Your task to perform on an android device: Add macbook air to the cart on bestbuy.com, then select checkout. Image 0: 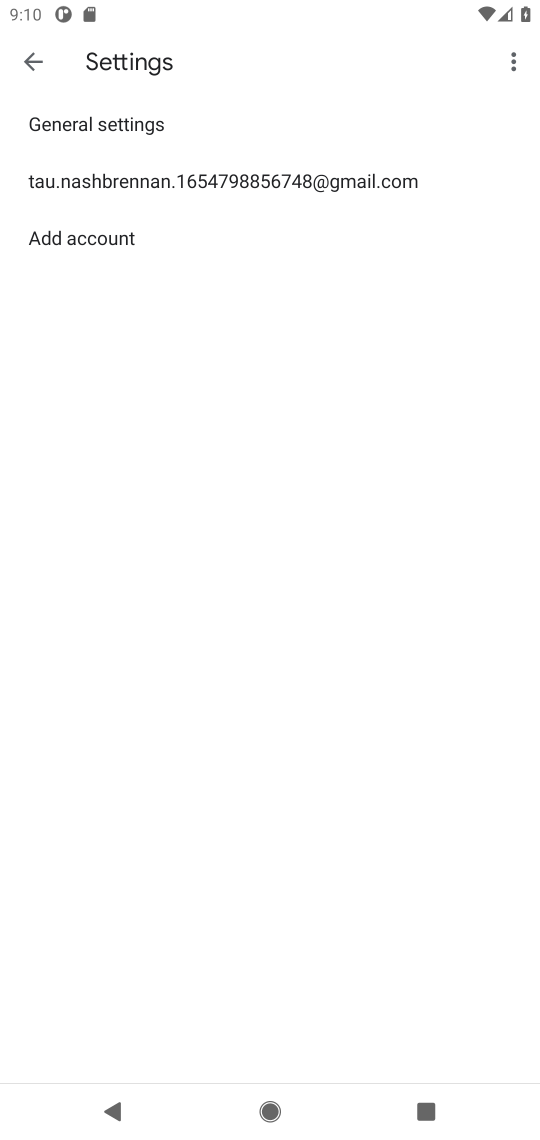
Step 0: press home button
Your task to perform on an android device: Add macbook air to the cart on bestbuy.com, then select checkout. Image 1: 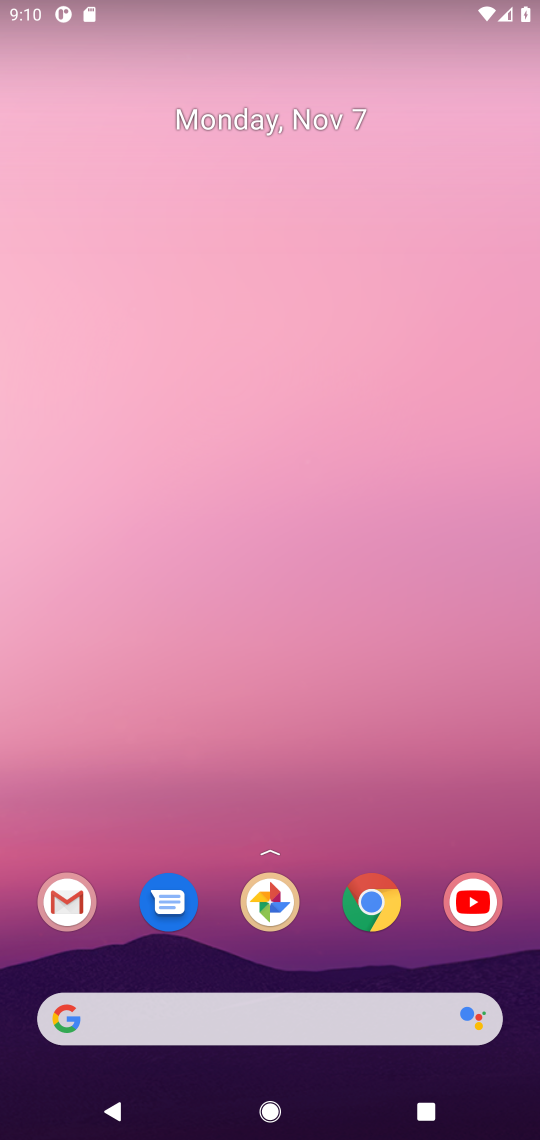
Step 1: click (360, 907)
Your task to perform on an android device: Add macbook air to the cart on bestbuy.com, then select checkout. Image 2: 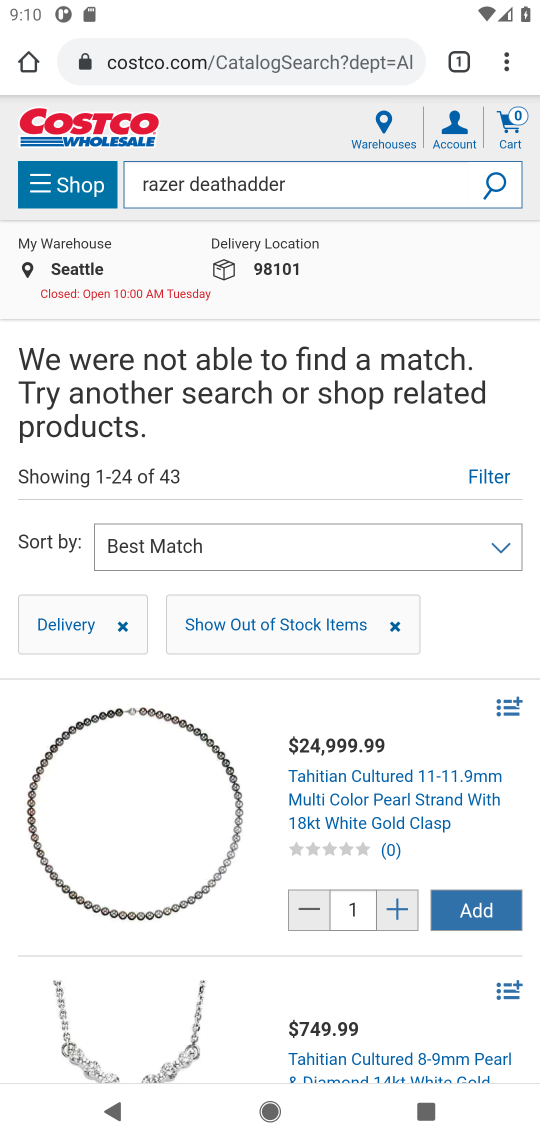
Step 2: click (227, 74)
Your task to perform on an android device: Add macbook air to the cart on bestbuy.com, then select checkout. Image 3: 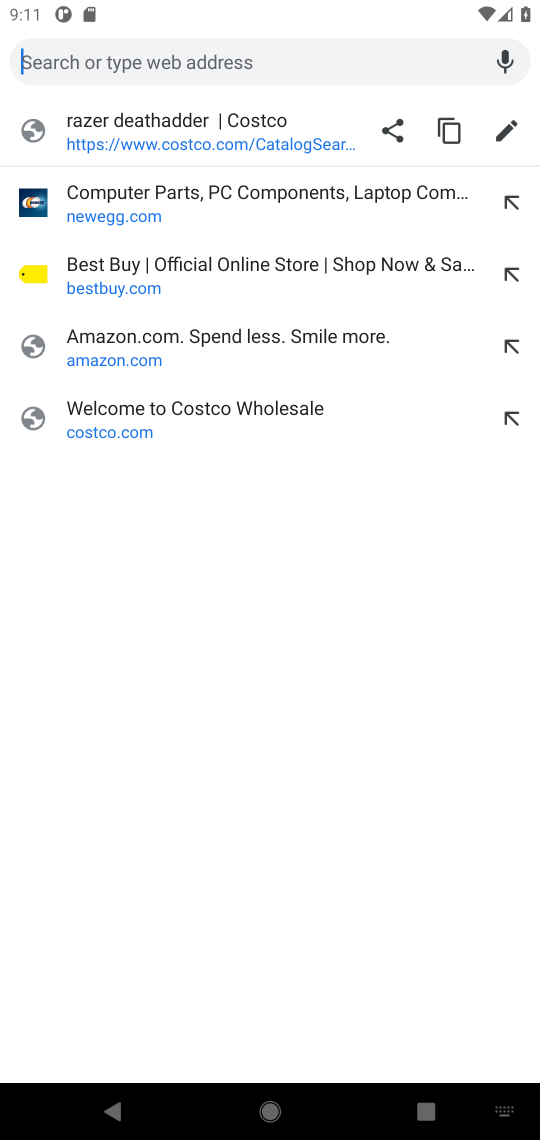
Step 3: click (97, 290)
Your task to perform on an android device: Add macbook air to the cart on bestbuy.com, then select checkout. Image 4: 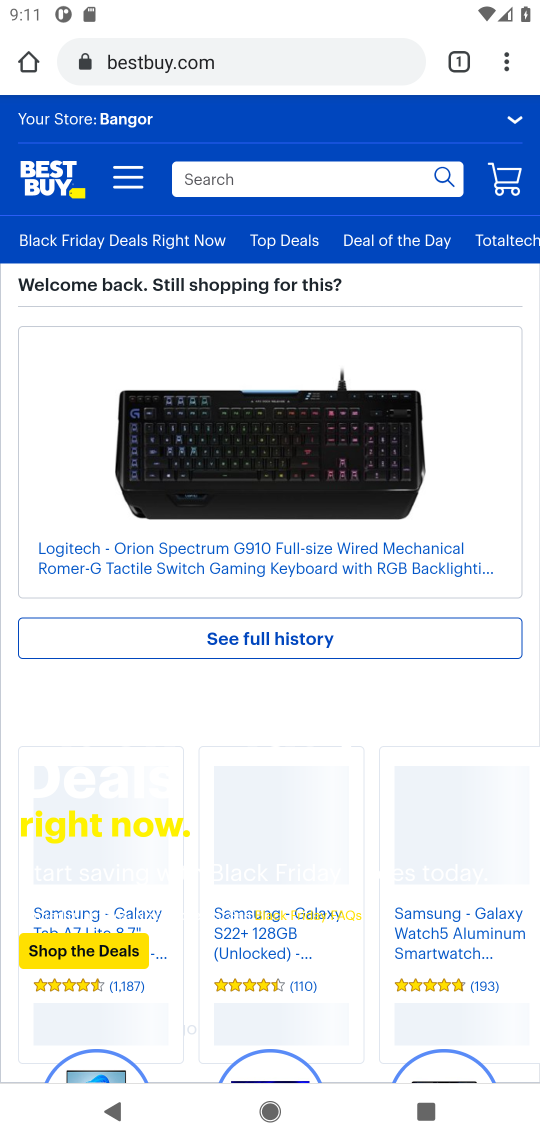
Step 4: click (297, 186)
Your task to perform on an android device: Add macbook air to the cart on bestbuy.com, then select checkout. Image 5: 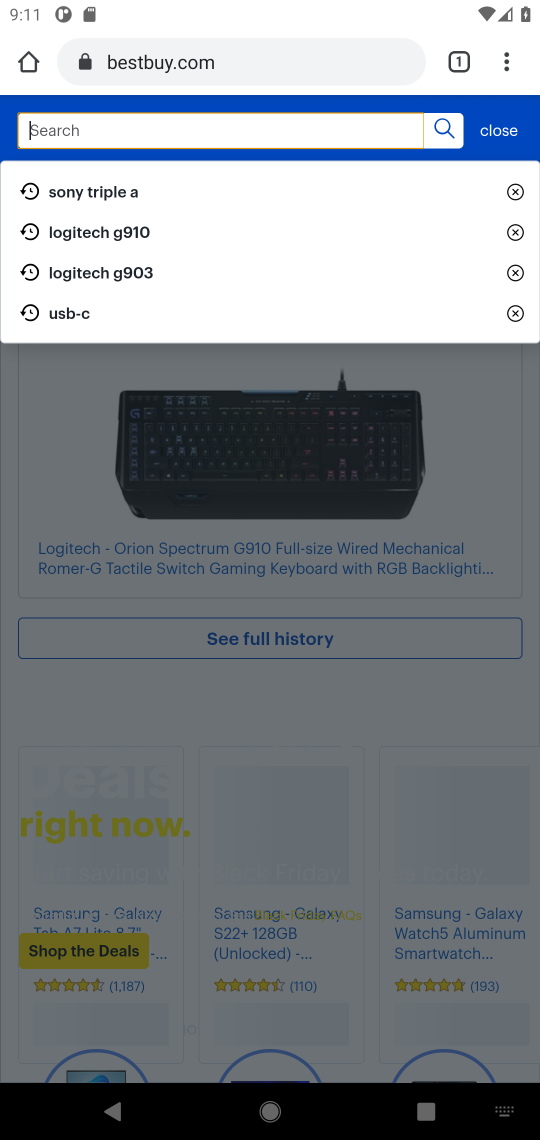
Step 5: type " macbook air "
Your task to perform on an android device: Add macbook air to the cart on bestbuy.com, then select checkout. Image 6: 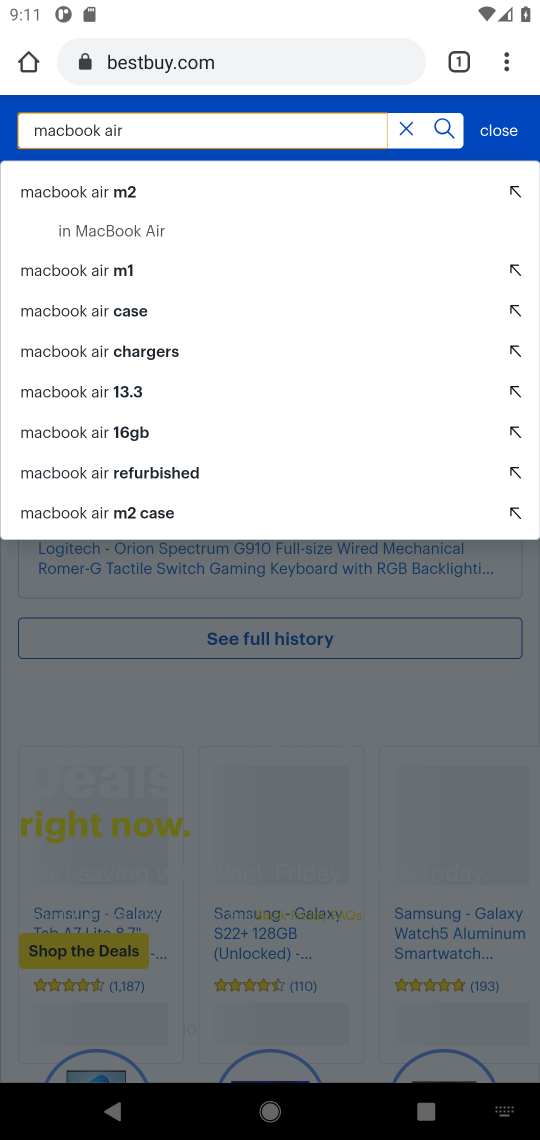
Step 6: click (445, 124)
Your task to perform on an android device: Add macbook air to the cart on bestbuy.com, then select checkout. Image 7: 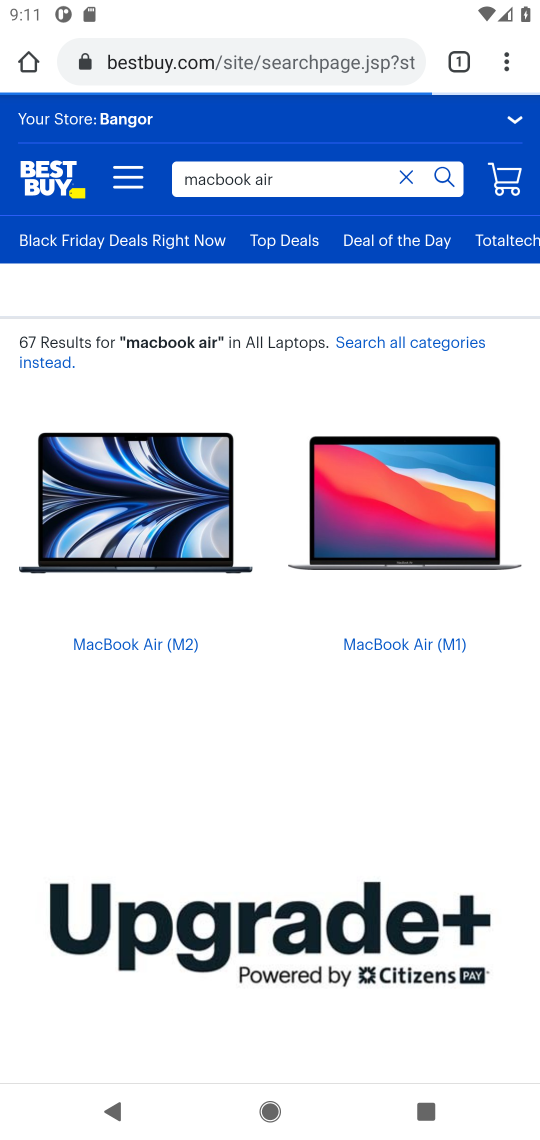
Step 7: drag from (253, 804) to (241, 497)
Your task to perform on an android device: Add macbook air to the cart on bestbuy.com, then select checkout. Image 8: 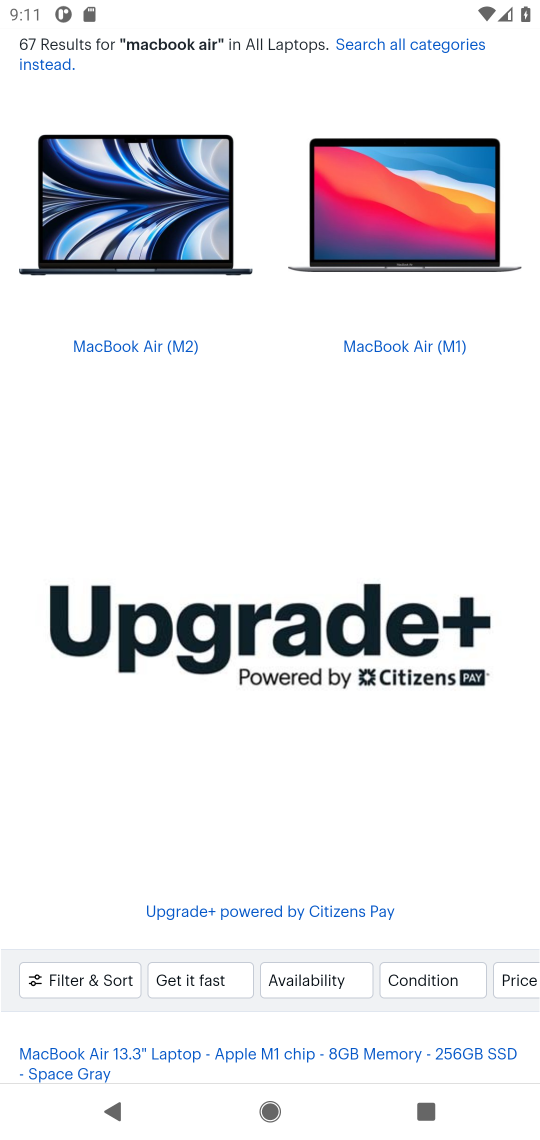
Step 8: drag from (192, 842) to (195, 514)
Your task to perform on an android device: Add macbook air to the cart on bestbuy.com, then select checkout. Image 9: 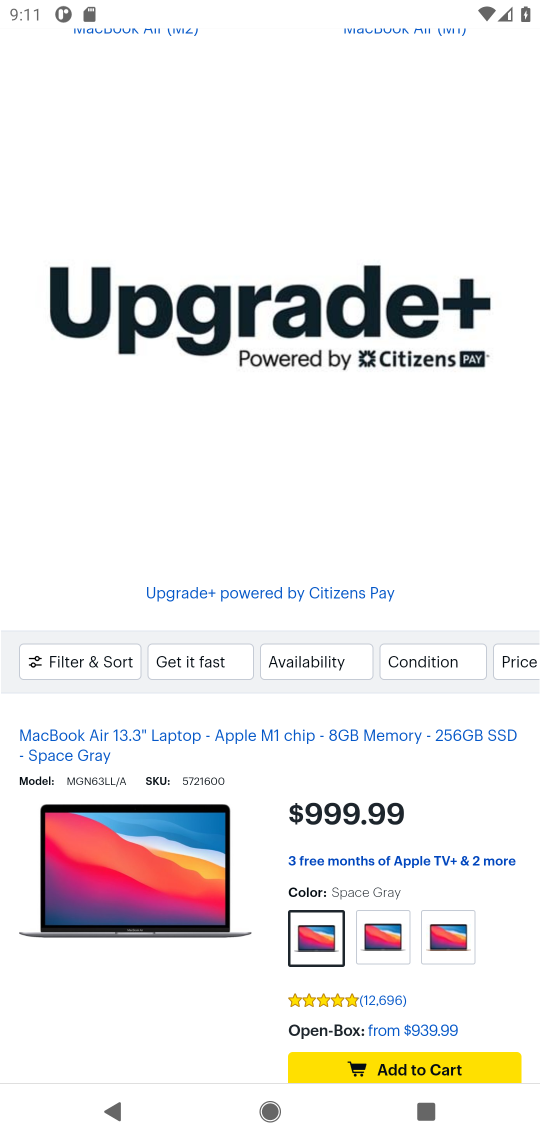
Step 9: drag from (168, 838) to (212, 429)
Your task to perform on an android device: Add macbook air to the cart on bestbuy.com, then select checkout. Image 10: 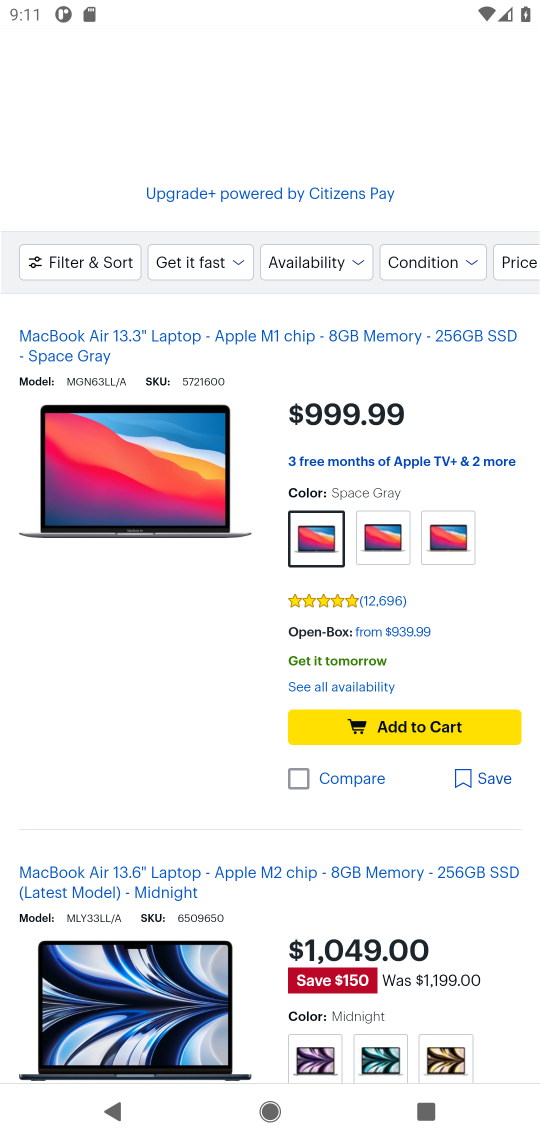
Step 10: click (406, 734)
Your task to perform on an android device: Add macbook air to the cart on bestbuy.com, then select checkout. Image 11: 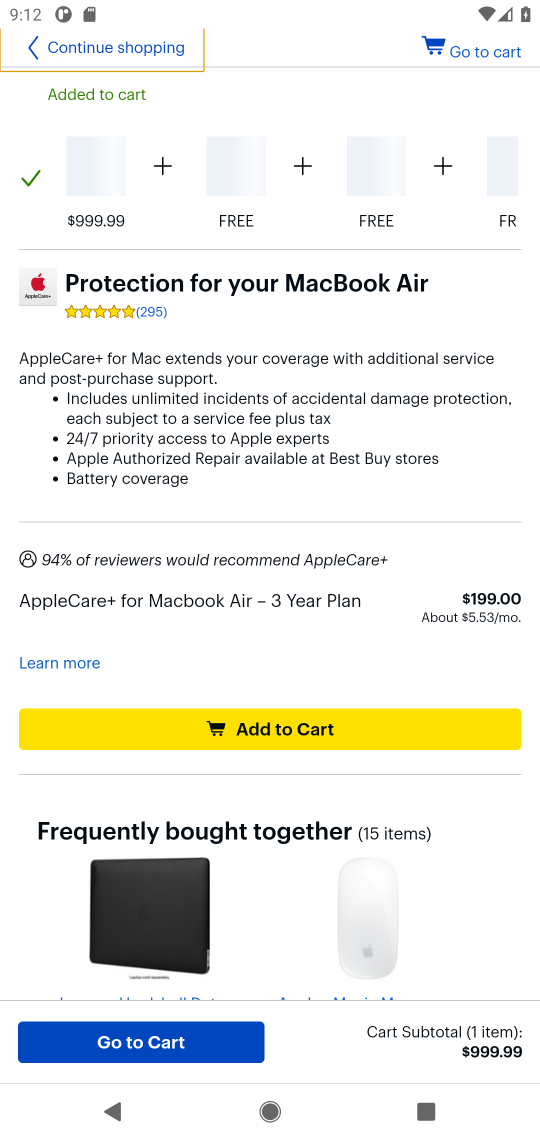
Step 11: click (482, 53)
Your task to perform on an android device: Add macbook air to the cart on bestbuy.com, then select checkout. Image 12: 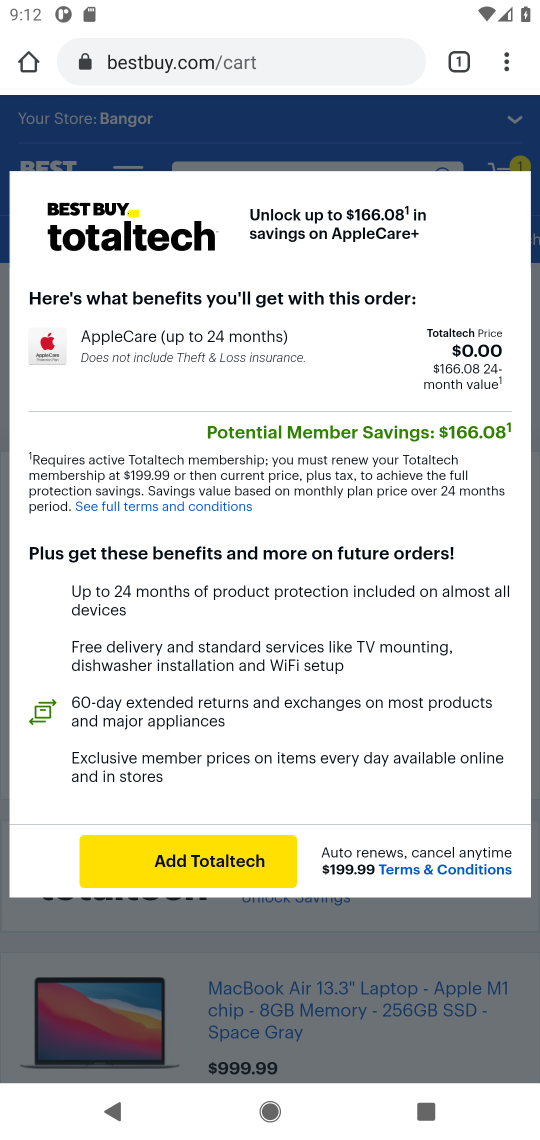
Step 12: click (289, 739)
Your task to perform on an android device: Add macbook air to the cart on bestbuy.com, then select checkout. Image 13: 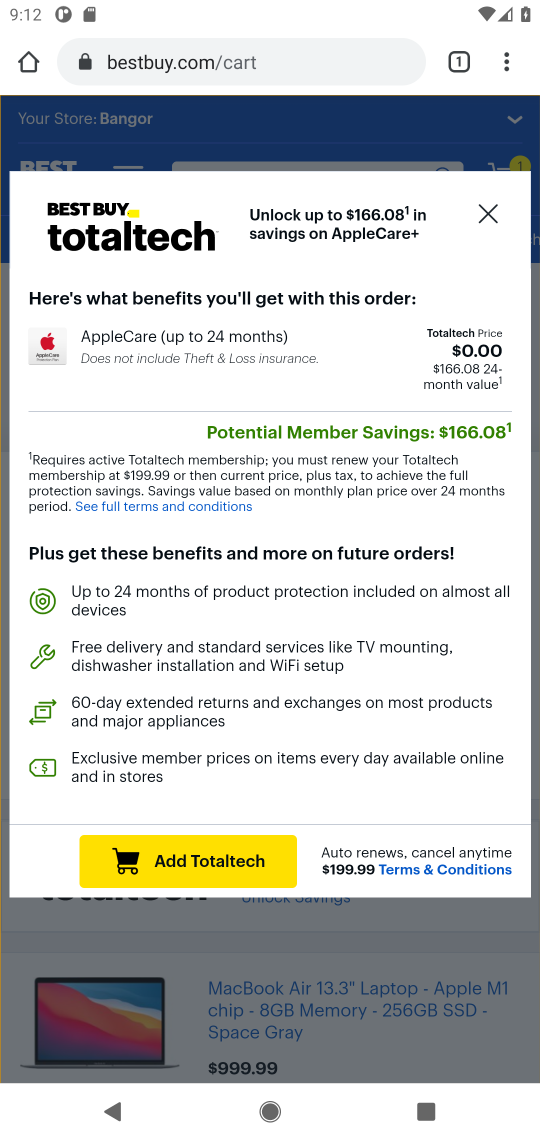
Step 13: click (497, 210)
Your task to perform on an android device: Add macbook air to the cart on bestbuy.com, then select checkout. Image 14: 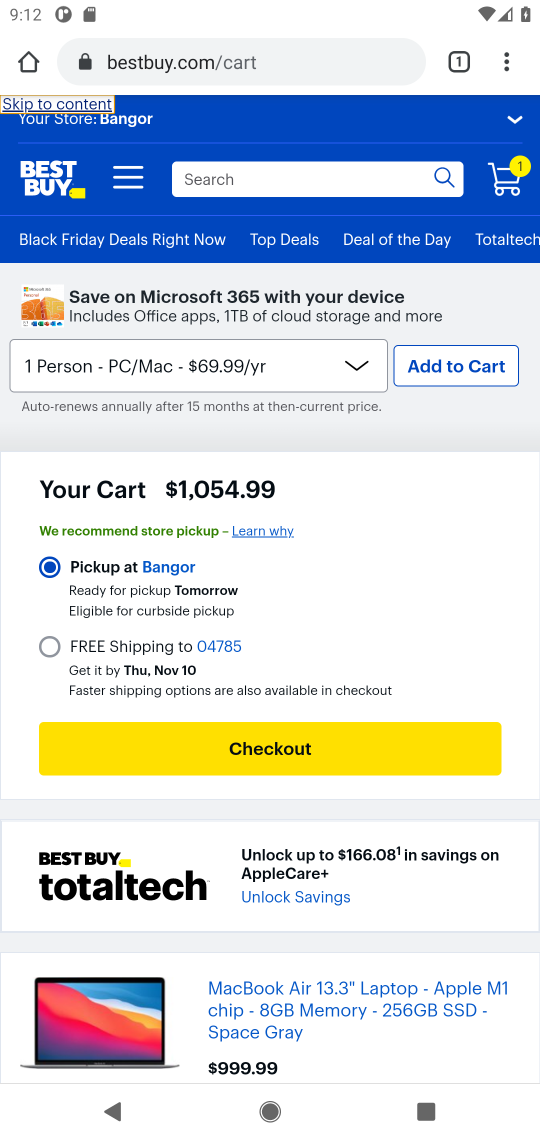
Step 14: click (266, 748)
Your task to perform on an android device: Add macbook air to the cart on bestbuy.com, then select checkout. Image 15: 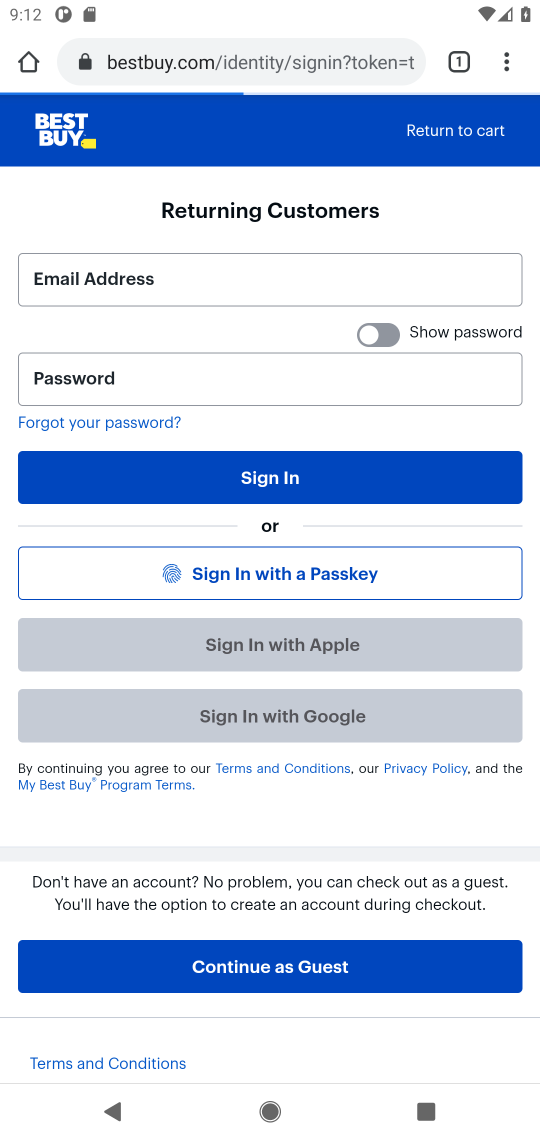
Step 15: task complete